Your task to perform on an android device: Open calendar and show me the fourth week of next month Image 0: 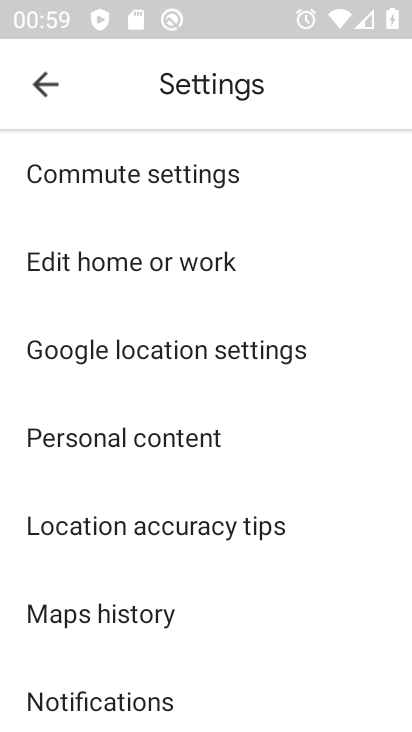
Step 0: press home button
Your task to perform on an android device: Open calendar and show me the fourth week of next month Image 1: 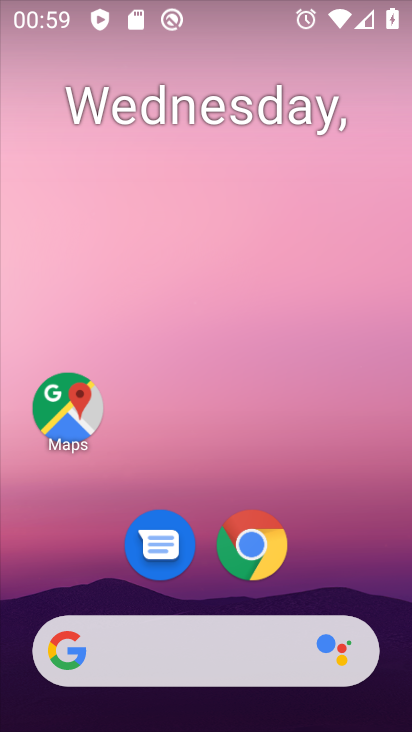
Step 1: drag from (333, 539) to (272, 72)
Your task to perform on an android device: Open calendar and show me the fourth week of next month Image 2: 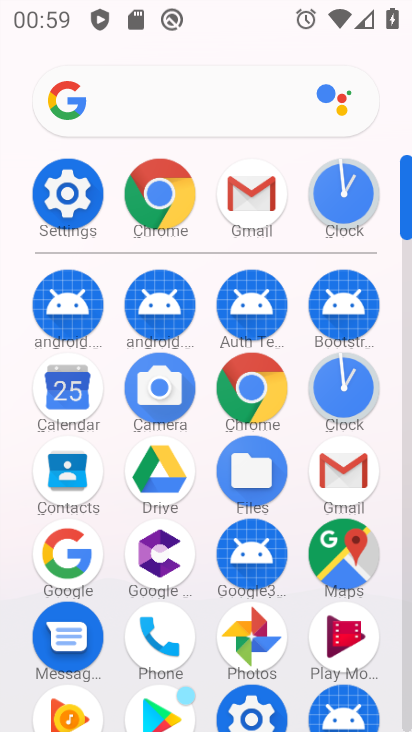
Step 2: click (47, 382)
Your task to perform on an android device: Open calendar and show me the fourth week of next month Image 3: 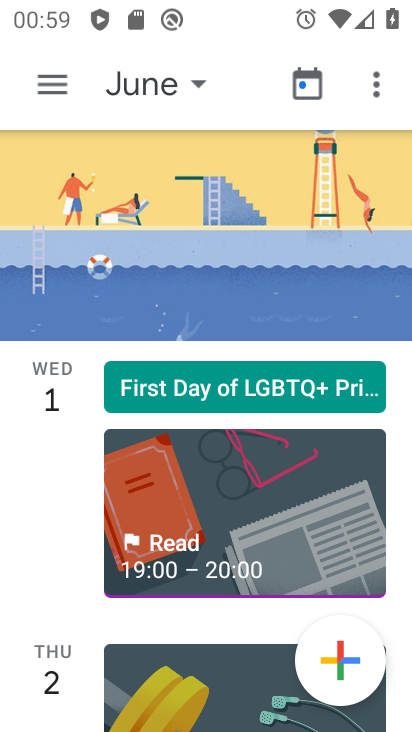
Step 3: click (136, 92)
Your task to perform on an android device: Open calendar and show me the fourth week of next month Image 4: 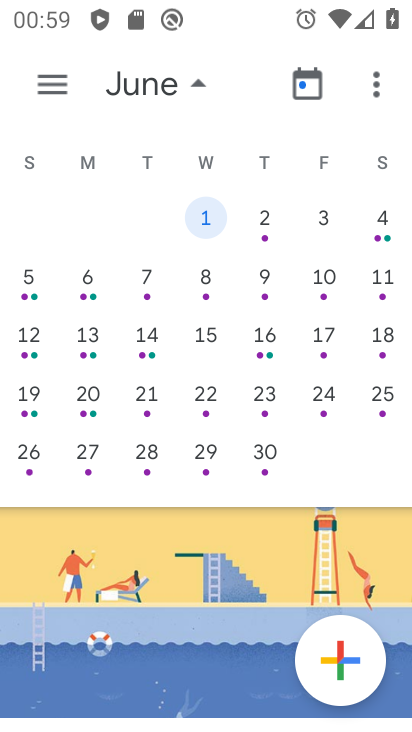
Step 4: drag from (380, 307) to (101, 234)
Your task to perform on an android device: Open calendar and show me the fourth week of next month Image 5: 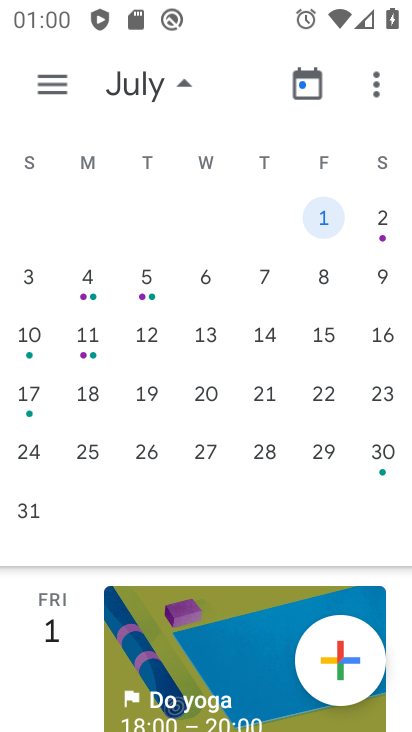
Step 5: drag from (85, 410) to (409, 431)
Your task to perform on an android device: Open calendar and show me the fourth week of next month Image 6: 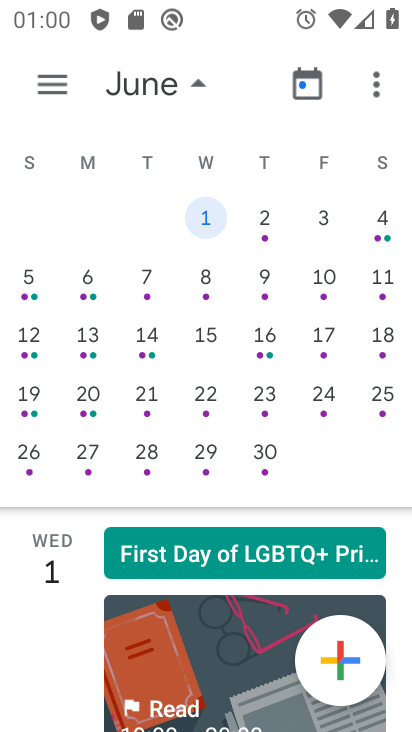
Step 6: click (27, 470)
Your task to perform on an android device: Open calendar and show me the fourth week of next month Image 7: 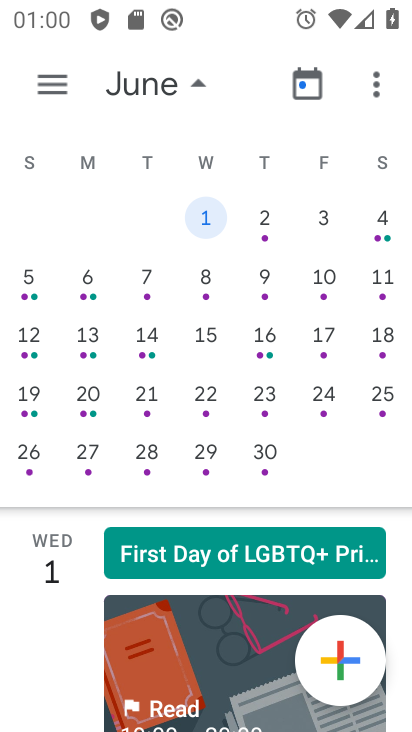
Step 7: click (20, 462)
Your task to perform on an android device: Open calendar and show me the fourth week of next month Image 8: 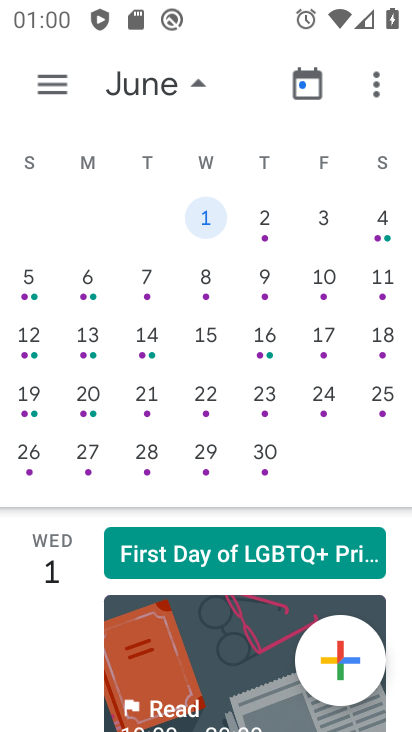
Step 8: click (27, 456)
Your task to perform on an android device: Open calendar and show me the fourth week of next month Image 9: 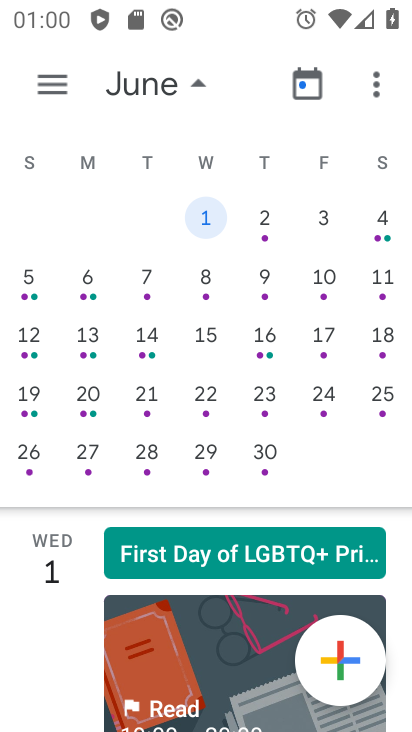
Step 9: click (31, 452)
Your task to perform on an android device: Open calendar and show me the fourth week of next month Image 10: 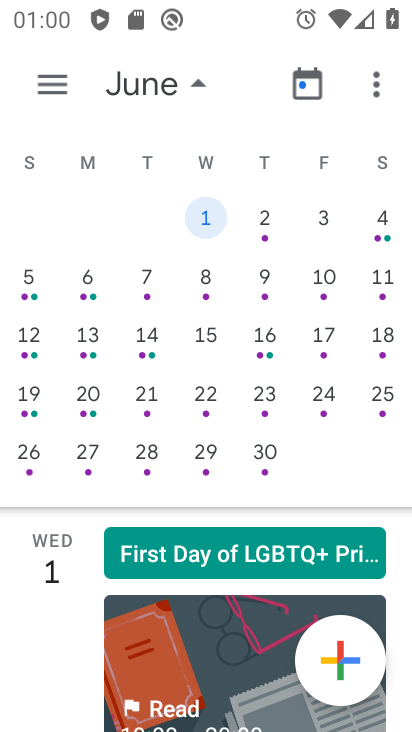
Step 10: click (146, 400)
Your task to perform on an android device: Open calendar and show me the fourth week of next month Image 11: 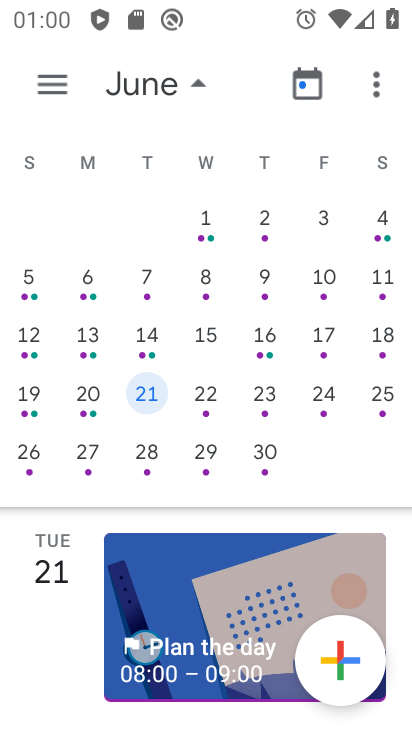
Step 11: click (28, 460)
Your task to perform on an android device: Open calendar and show me the fourth week of next month Image 12: 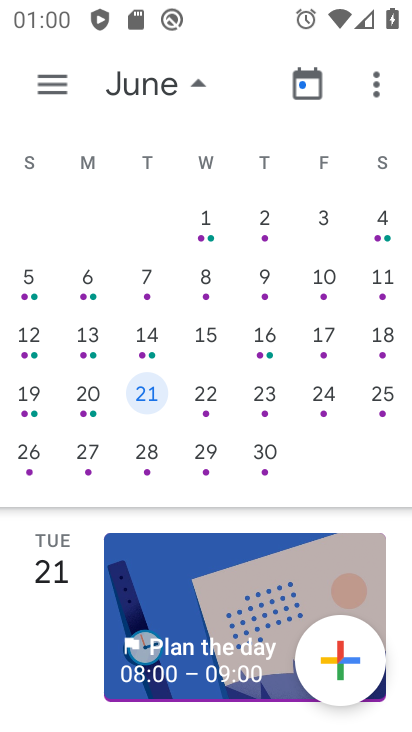
Step 12: click (98, 456)
Your task to perform on an android device: Open calendar and show me the fourth week of next month Image 13: 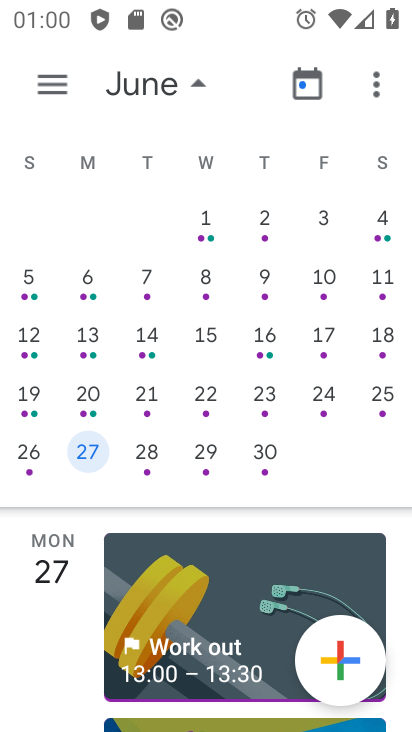
Step 13: click (55, 83)
Your task to perform on an android device: Open calendar and show me the fourth week of next month Image 14: 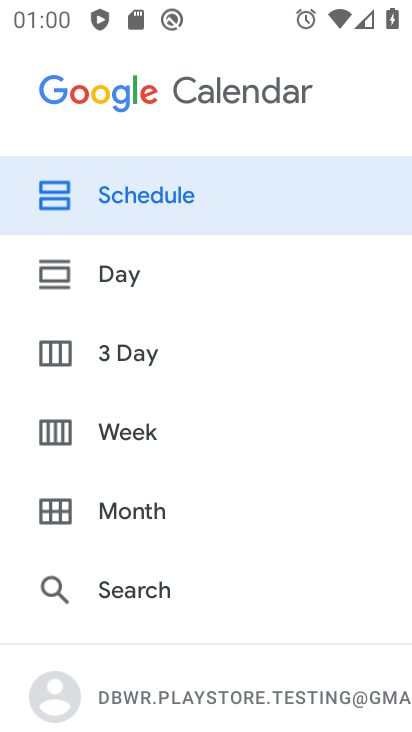
Step 14: click (107, 430)
Your task to perform on an android device: Open calendar and show me the fourth week of next month Image 15: 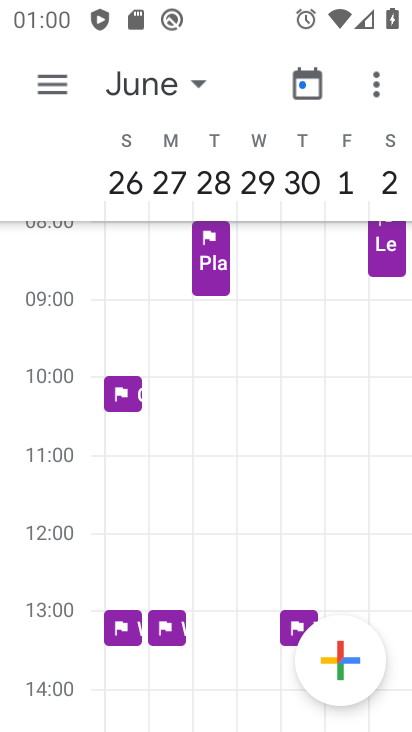
Step 15: task complete